Your task to perform on an android device: Open Chrome and go to the settings page Image 0: 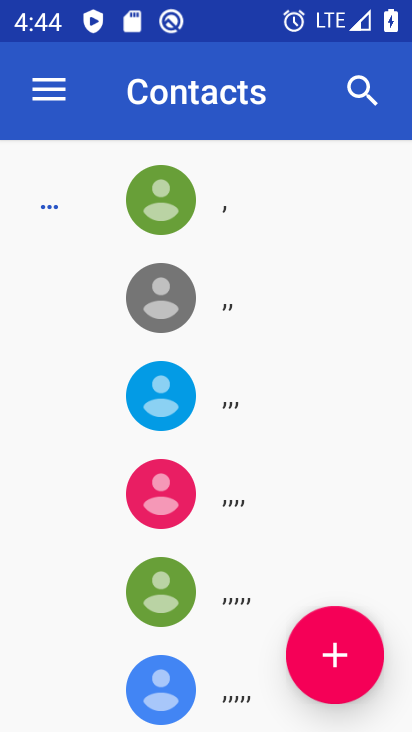
Step 0: press home button
Your task to perform on an android device: Open Chrome and go to the settings page Image 1: 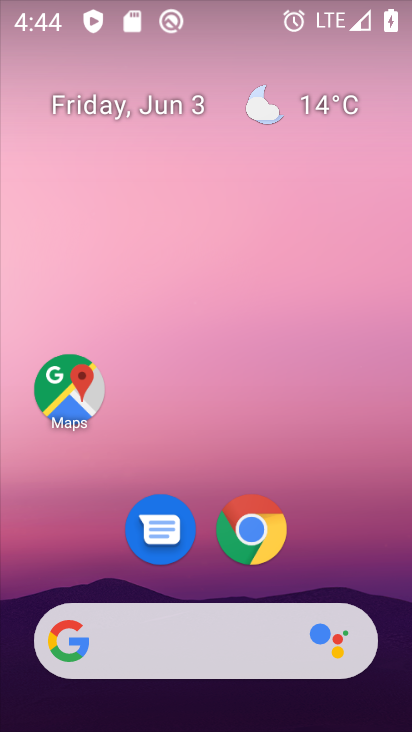
Step 1: click (252, 524)
Your task to perform on an android device: Open Chrome and go to the settings page Image 2: 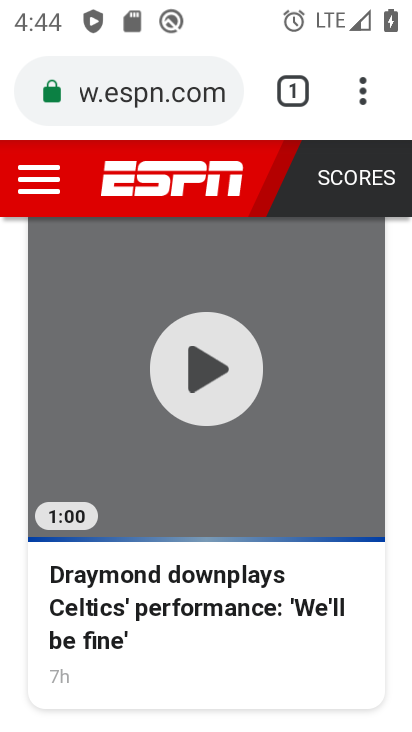
Step 2: click (364, 80)
Your task to perform on an android device: Open Chrome and go to the settings page Image 3: 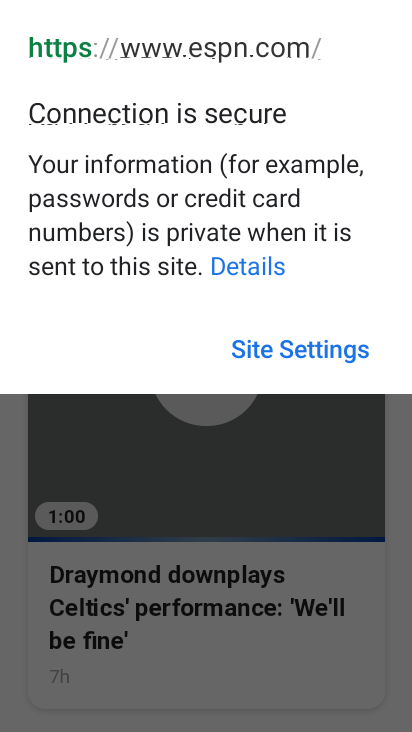
Step 3: click (196, 521)
Your task to perform on an android device: Open Chrome and go to the settings page Image 4: 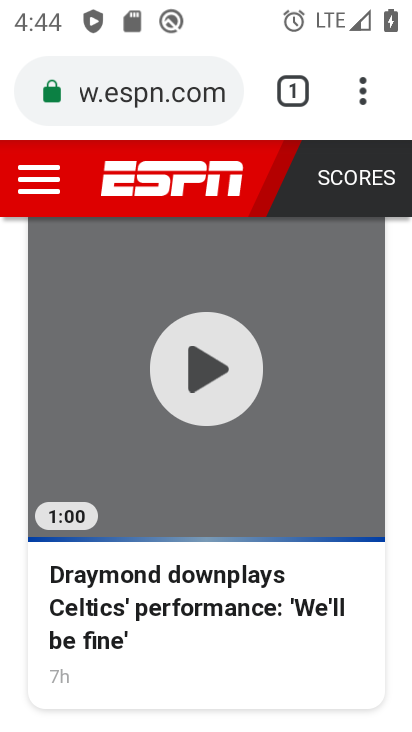
Step 4: click (363, 97)
Your task to perform on an android device: Open Chrome and go to the settings page Image 5: 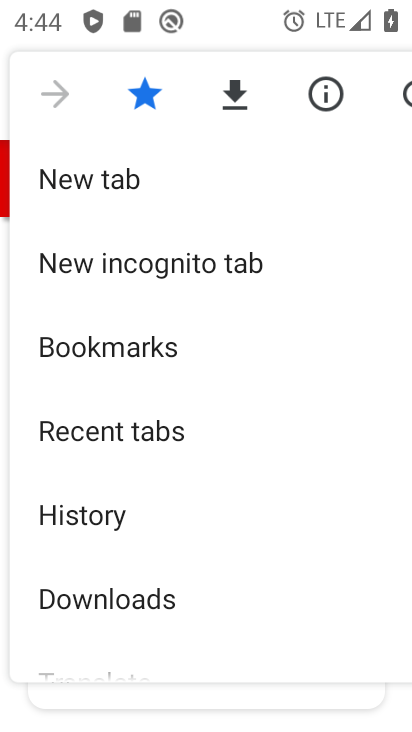
Step 5: drag from (201, 606) to (244, 181)
Your task to perform on an android device: Open Chrome and go to the settings page Image 6: 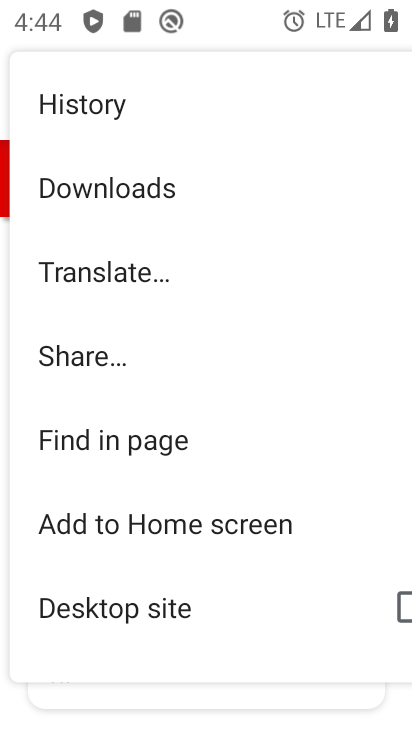
Step 6: drag from (211, 608) to (234, 223)
Your task to perform on an android device: Open Chrome and go to the settings page Image 7: 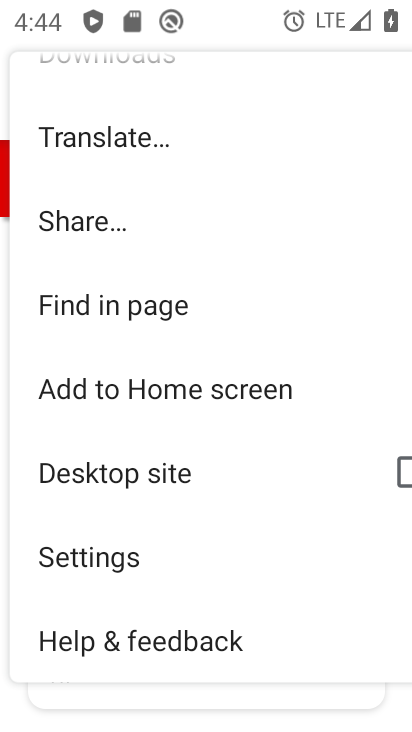
Step 7: click (152, 547)
Your task to perform on an android device: Open Chrome and go to the settings page Image 8: 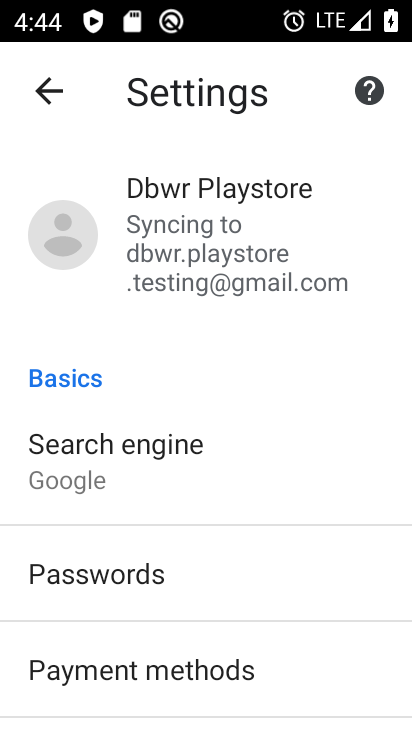
Step 8: task complete